Your task to perform on an android device: Open the phone app and click the voicemail tab. Image 0: 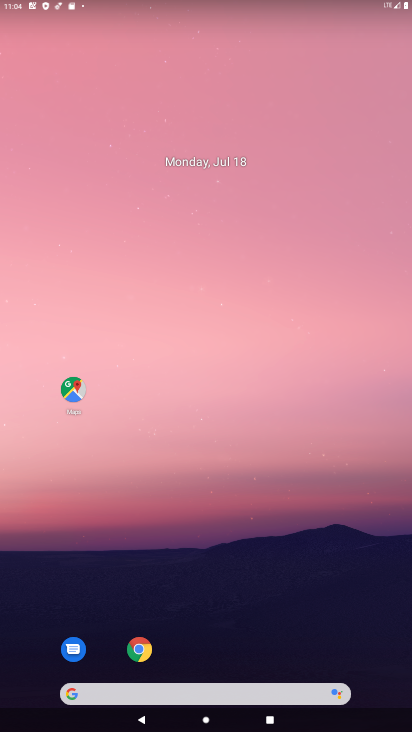
Step 0: drag from (224, 724) to (260, 68)
Your task to perform on an android device: Open the phone app and click the voicemail tab. Image 1: 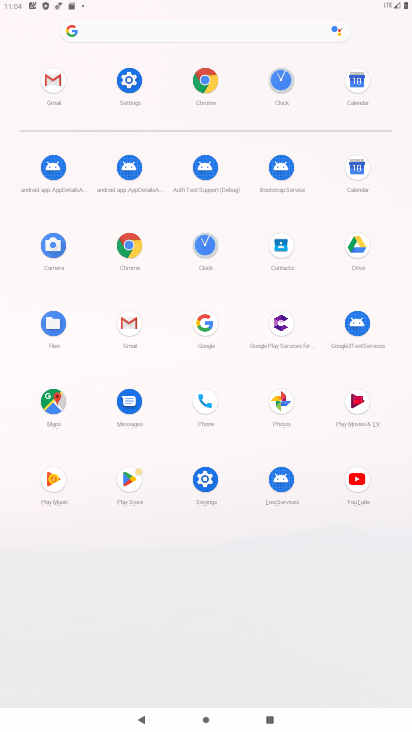
Step 1: click (210, 403)
Your task to perform on an android device: Open the phone app and click the voicemail tab. Image 2: 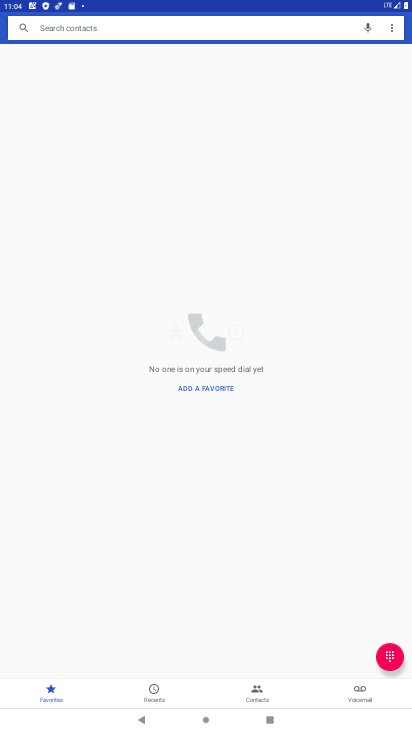
Step 2: click (369, 689)
Your task to perform on an android device: Open the phone app and click the voicemail tab. Image 3: 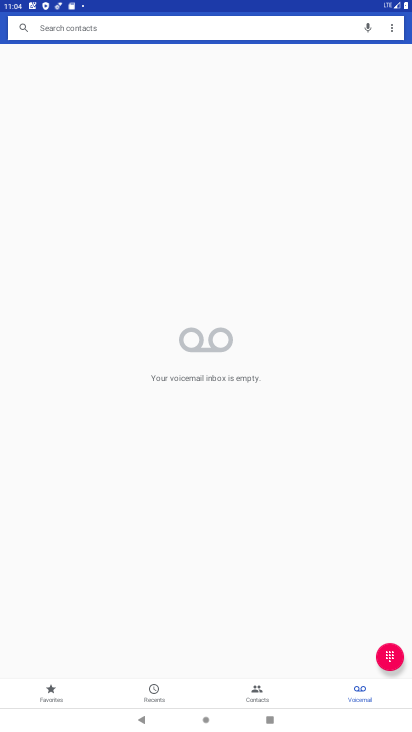
Step 3: task complete